Your task to perform on an android device: turn off improve location accuracy Image 0: 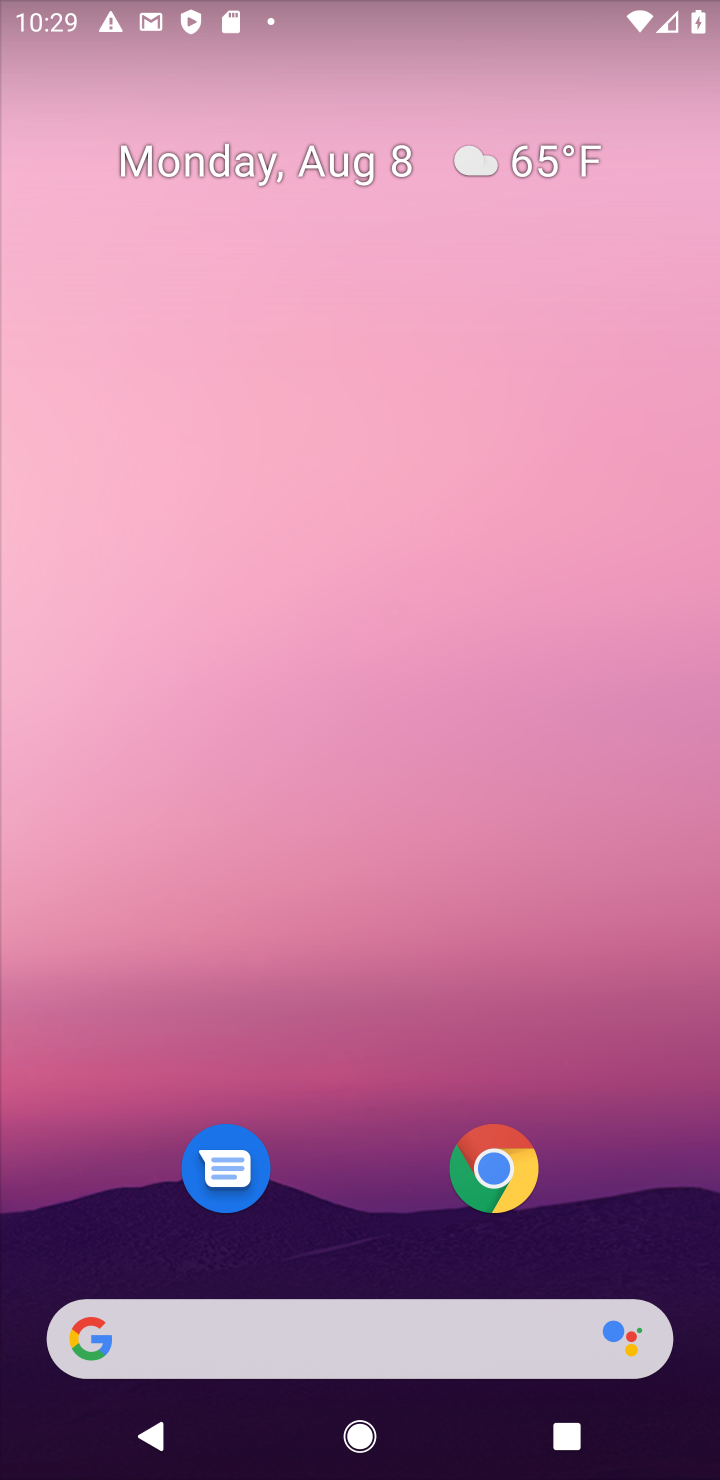
Step 0: drag from (362, 1116) to (515, 24)
Your task to perform on an android device: turn off improve location accuracy Image 1: 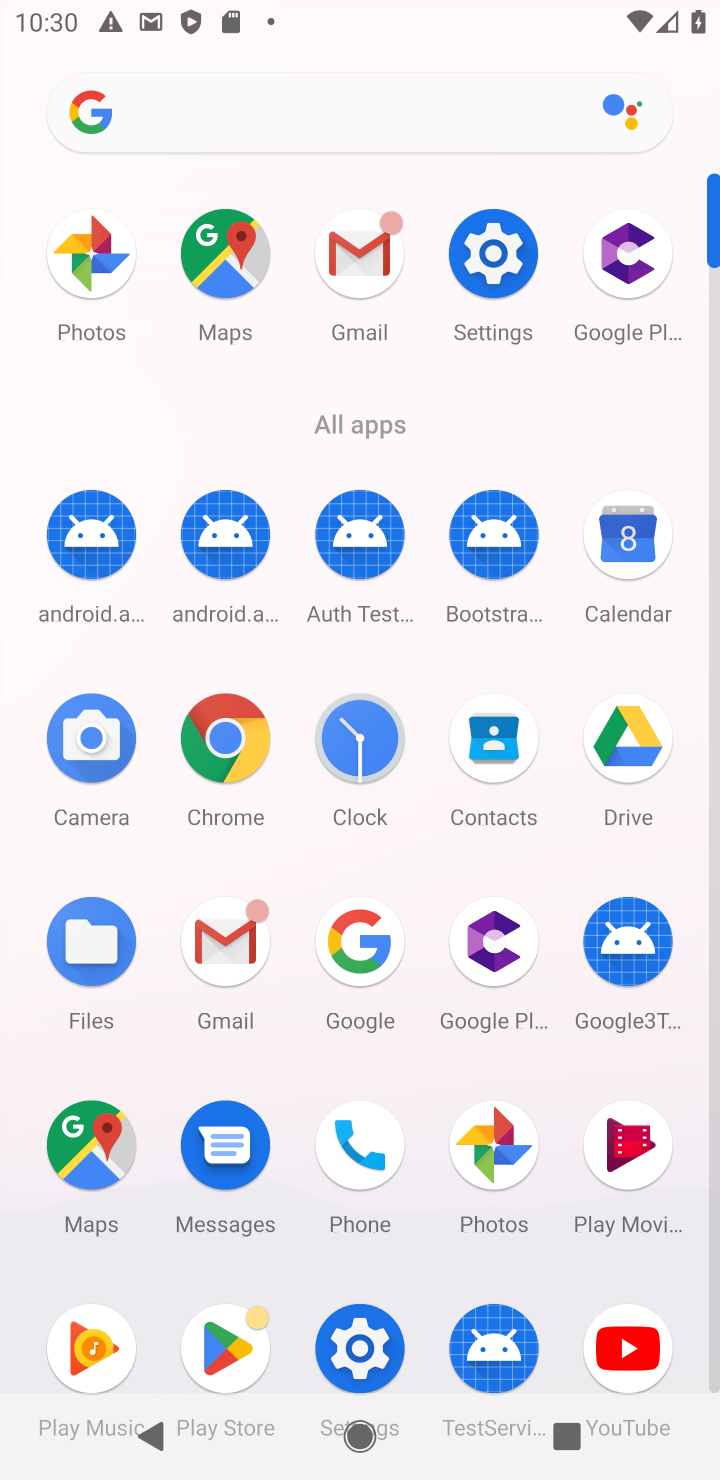
Step 1: click (100, 1139)
Your task to perform on an android device: turn off improve location accuracy Image 2: 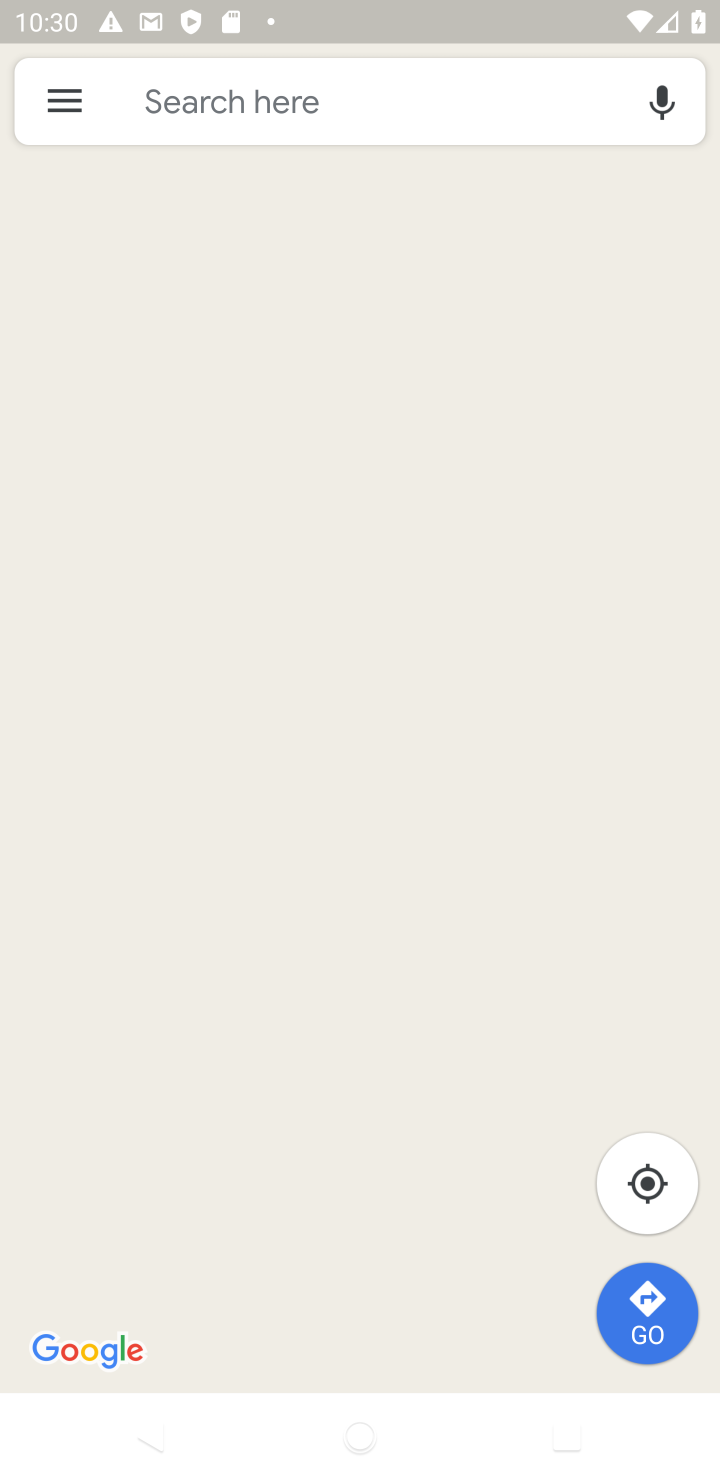
Step 2: click (59, 101)
Your task to perform on an android device: turn off improve location accuracy Image 3: 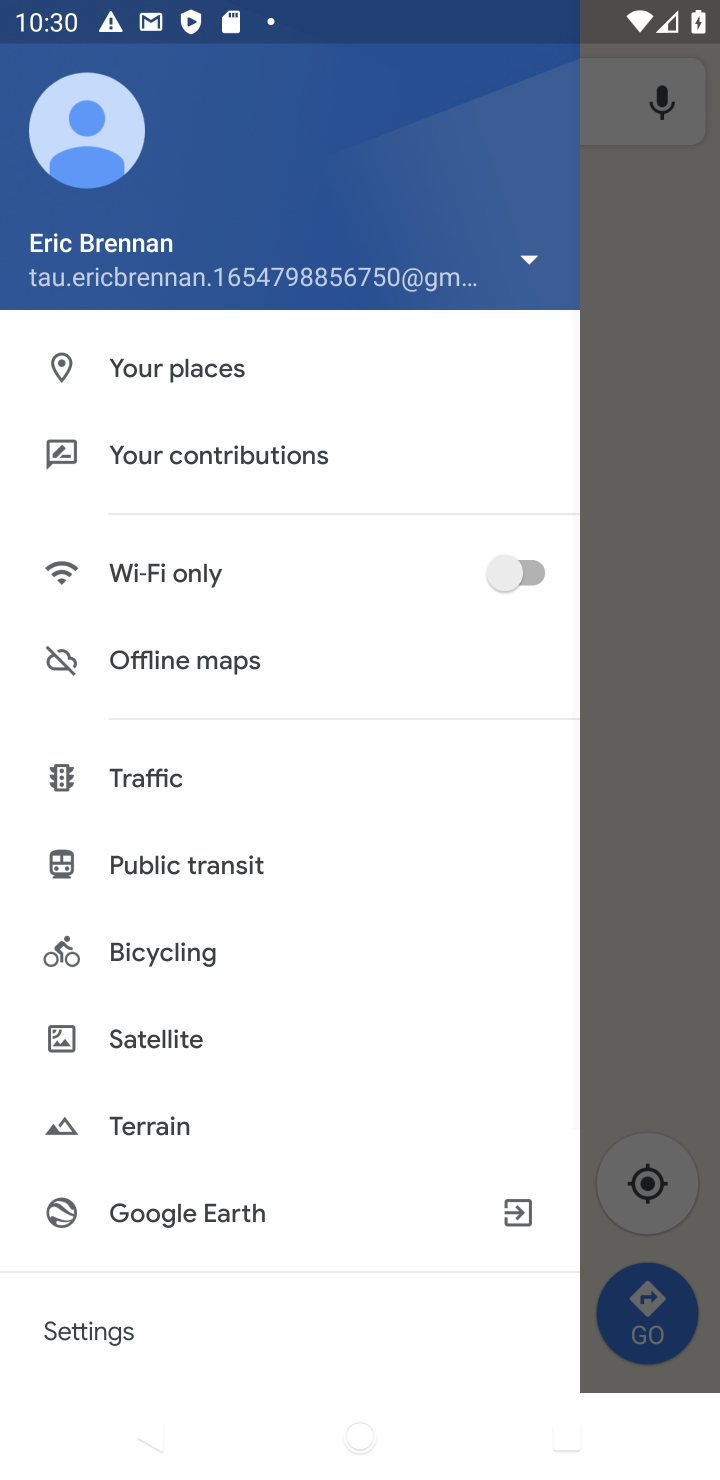
Step 3: drag from (179, 1266) to (399, 531)
Your task to perform on an android device: turn off improve location accuracy Image 4: 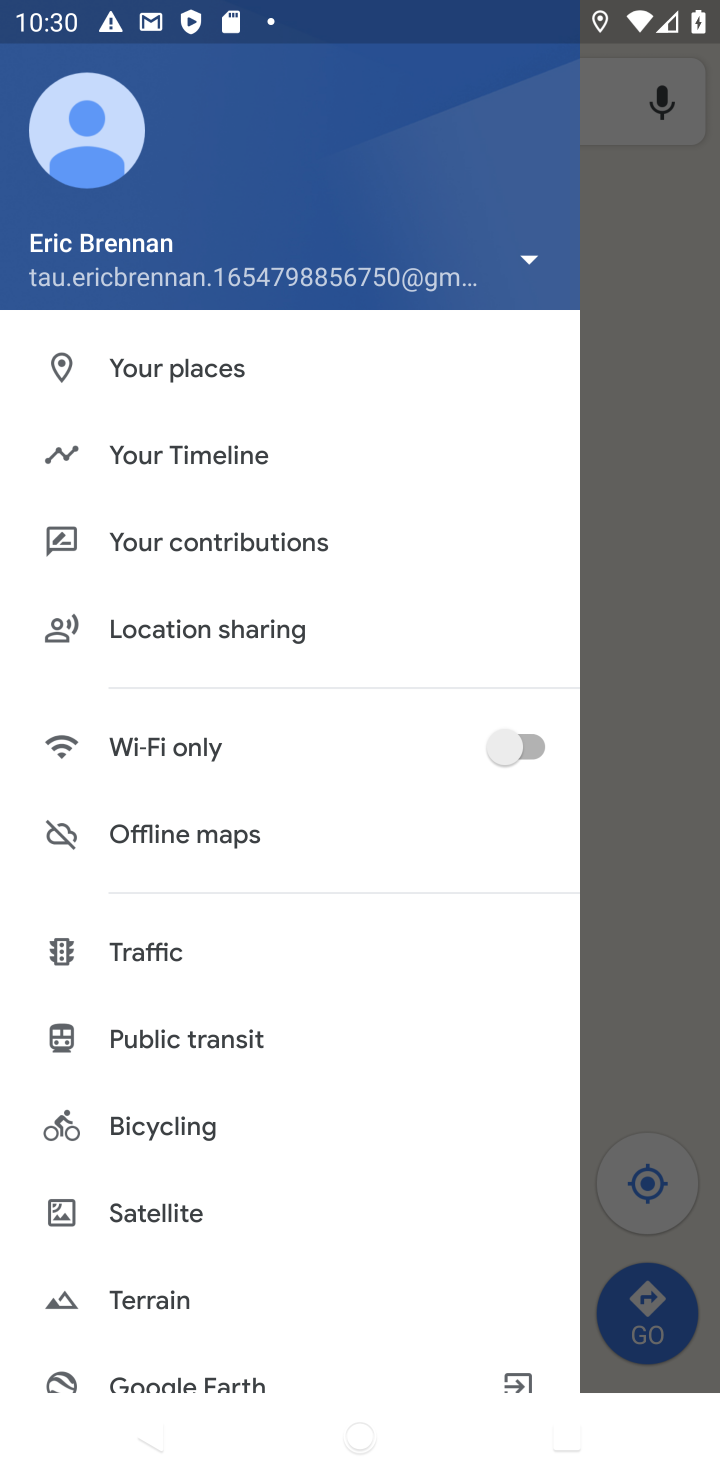
Step 4: drag from (191, 1242) to (305, 686)
Your task to perform on an android device: turn off improve location accuracy Image 5: 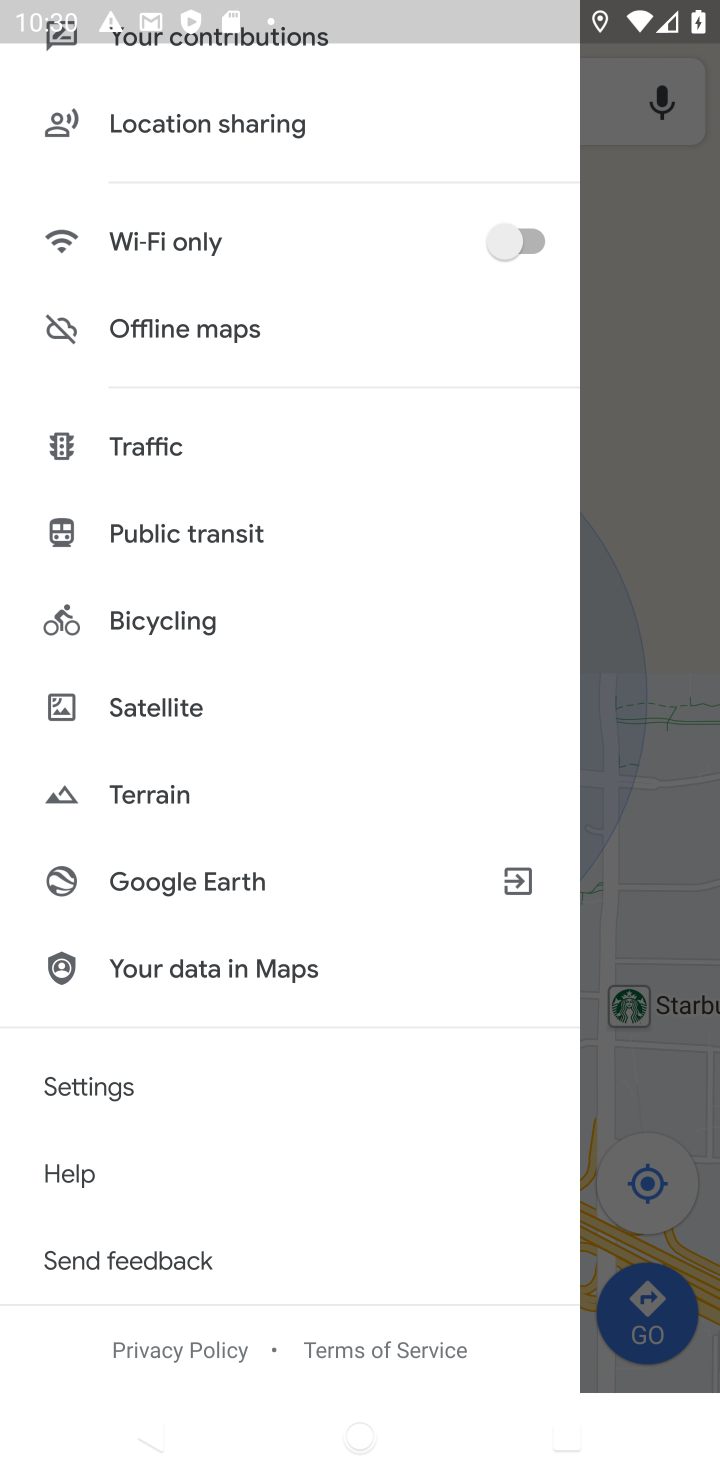
Step 5: click (107, 1090)
Your task to perform on an android device: turn off improve location accuracy Image 6: 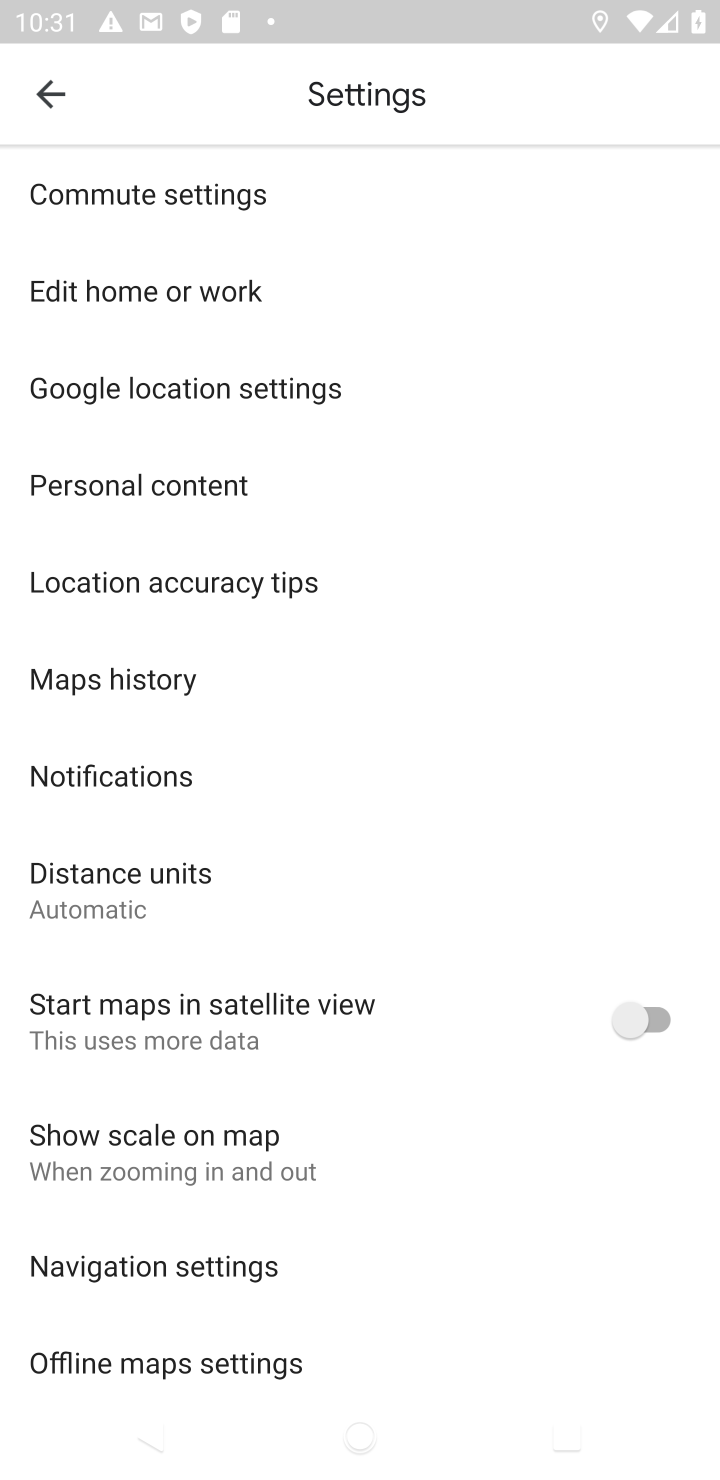
Step 6: click (370, 386)
Your task to perform on an android device: turn off improve location accuracy Image 7: 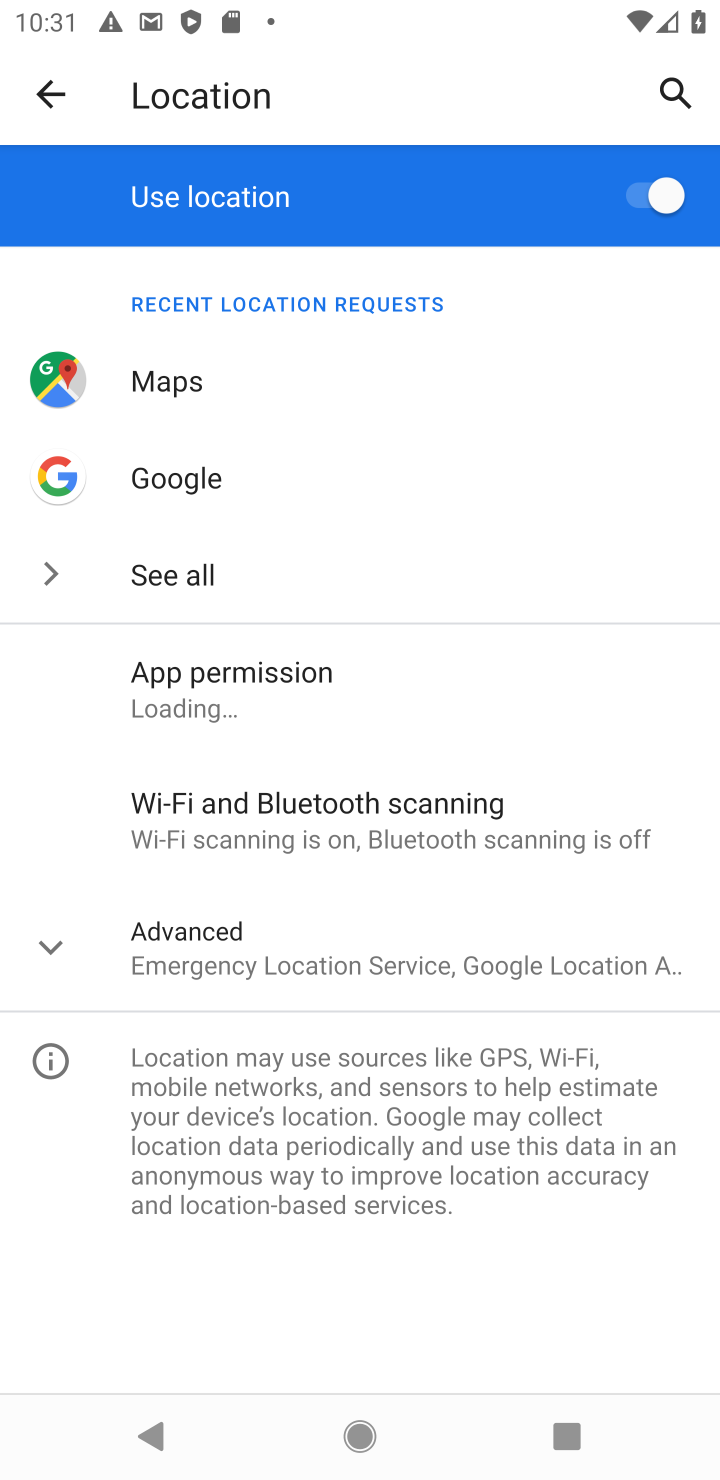
Step 7: click (352, 972)
Your task to perform on an android device: turn off improve location accuracy Image 8: 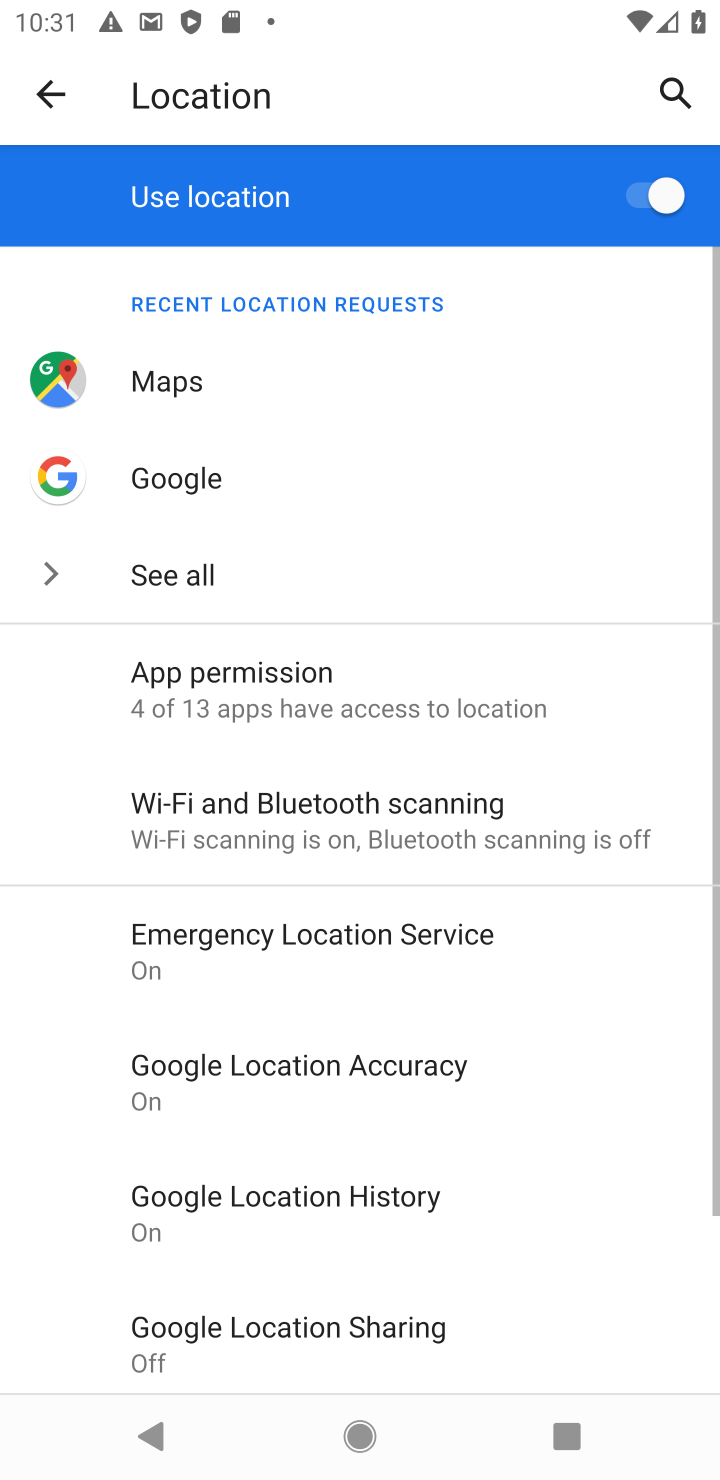
Step 8: click (385, 1074)
Your task to perform on an android device: turn off improve location accuracy Image 9: 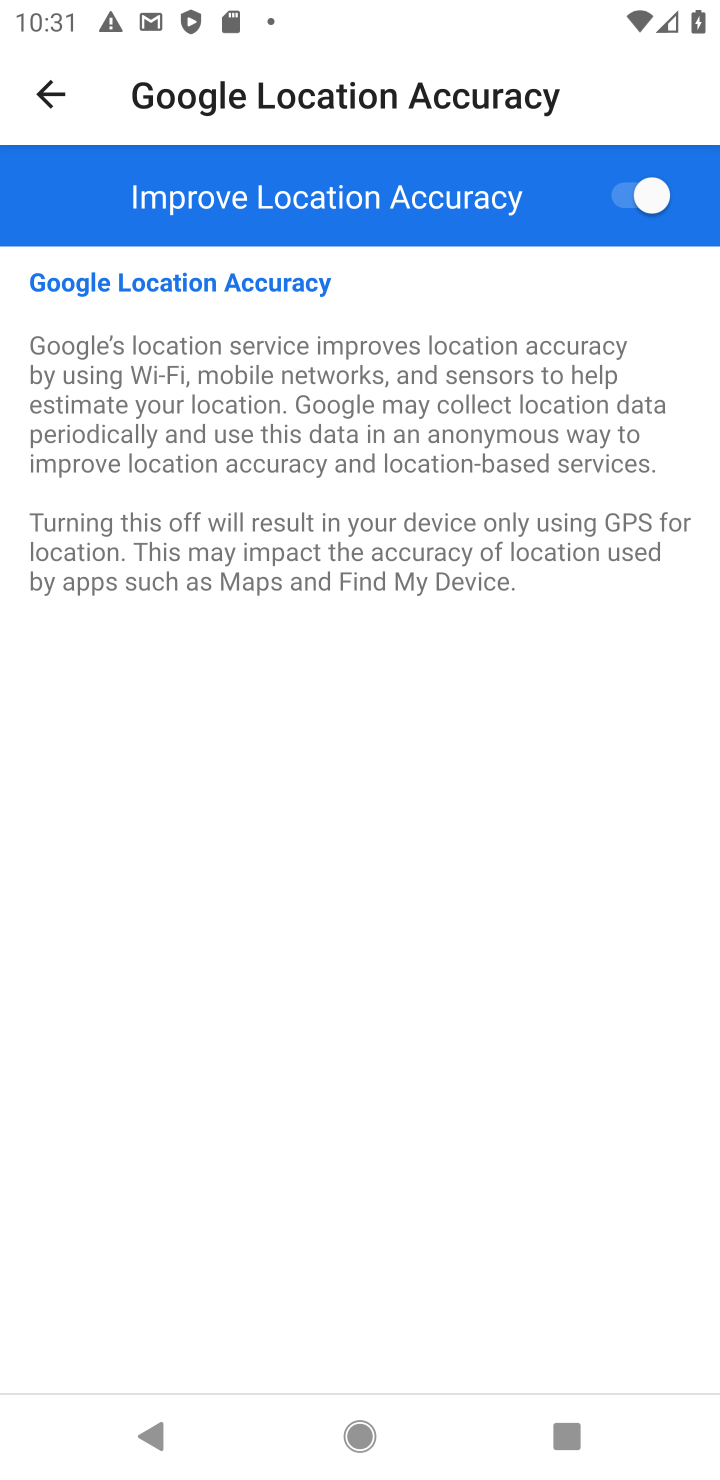
Step 9: click (654, 208)
Your task to perform on an android device: turn off improve location accuracy Image 10: 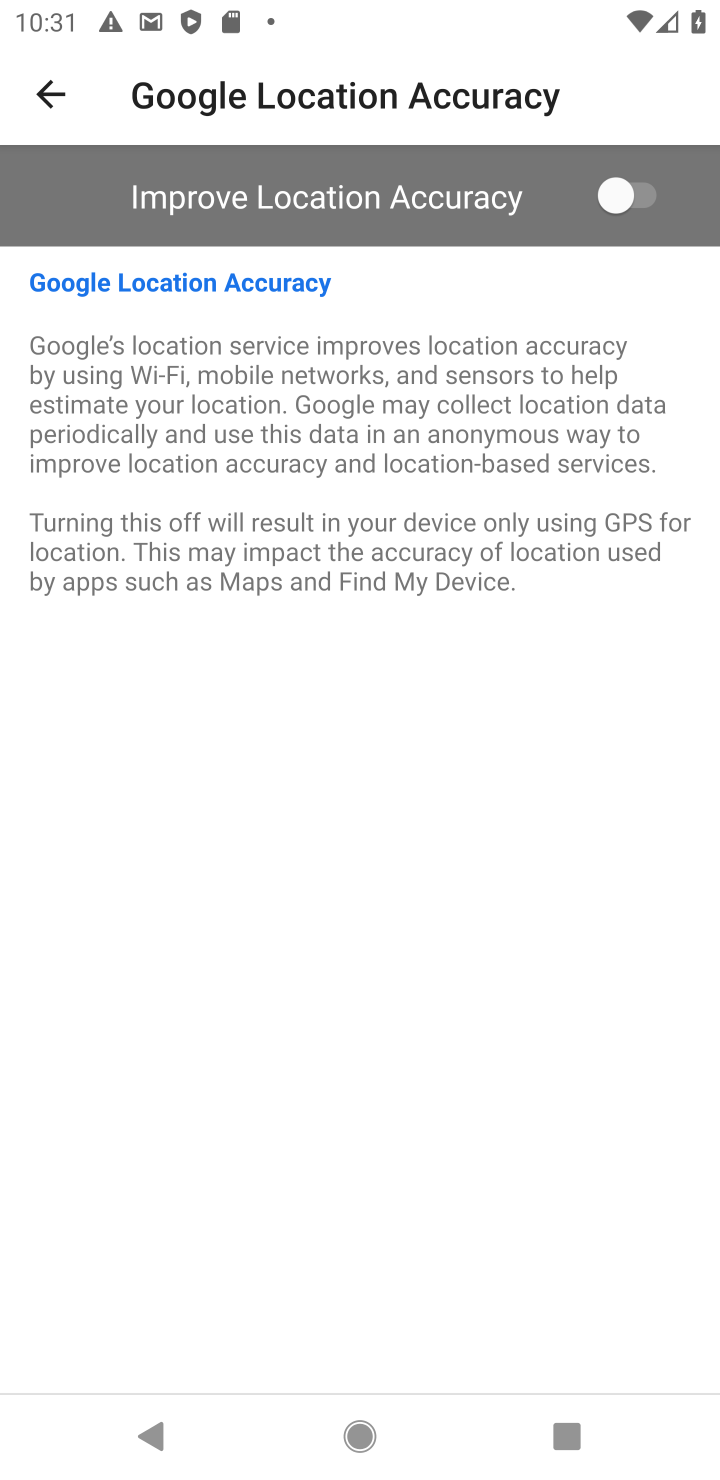
Step 10: task complete